Your task to perform on an android device: Go to Maps Image 0: 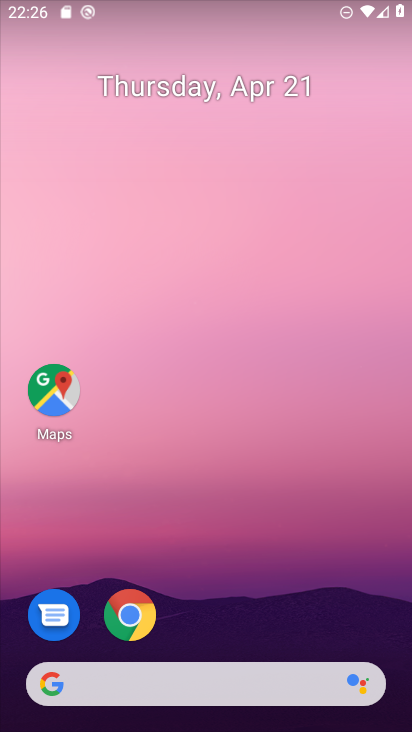
Step 0: click (242, 84)
Your task to perform on an android device: Go to Maps Image 1: 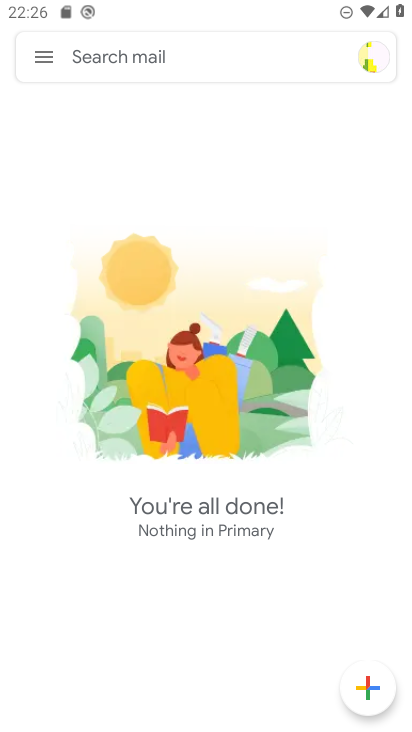
Step 1: drag from (166, 596) to (1, 90)
Your task to perform on an android device: Go to Maps Image 2: 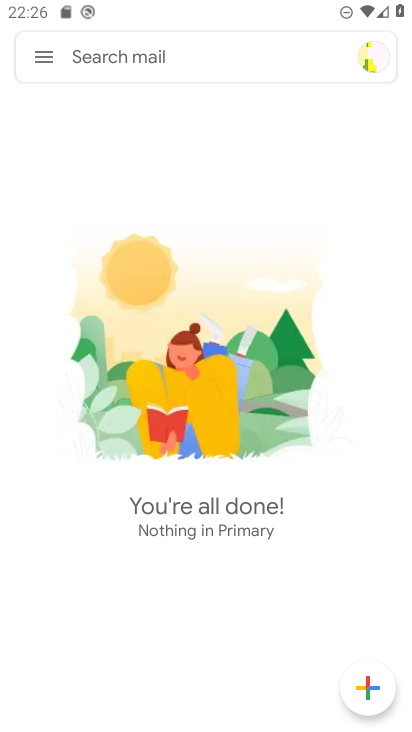
Step 2: click (46, 62)
Your task to perform on an android device: Go to Maps Image 3: 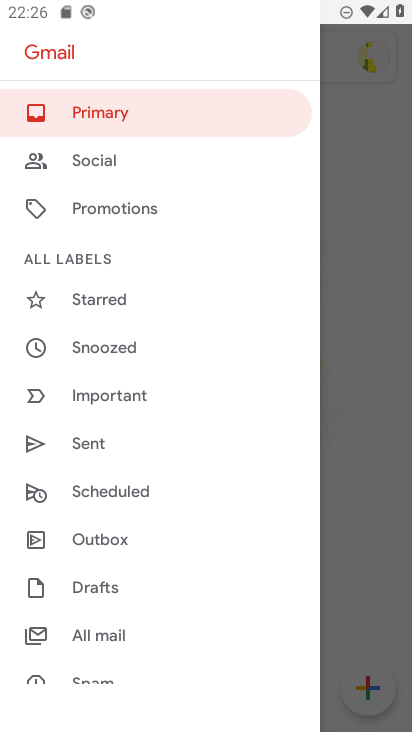
Step 3: drag from (126, 593) to (242, 118)
Your task to perform on an android device: Go to Maps Image 4: 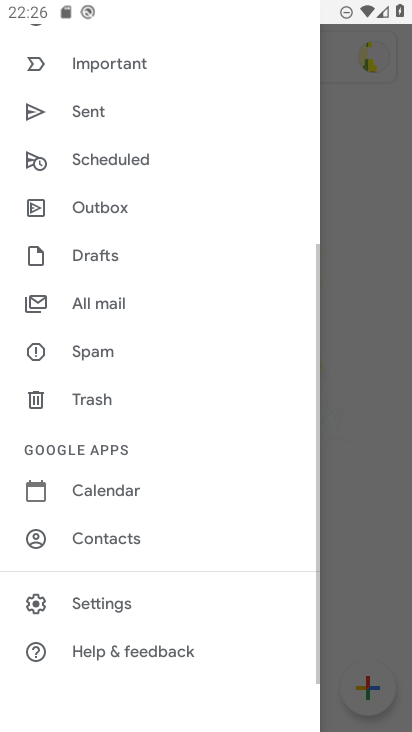
Step 4: drag from (157, 536) to (232, 117)
Your task to perform on an android device: Go to Maps Image 5: 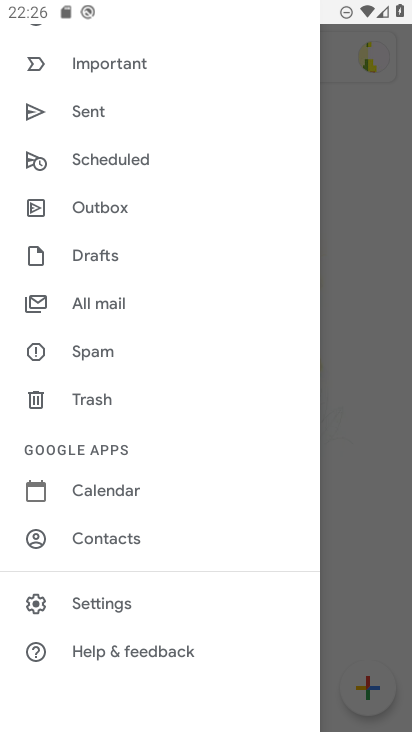
Step 5: drag from (162, 604) to (225, 269)
Your task to perform on an android device: Go to Maps Image 6: 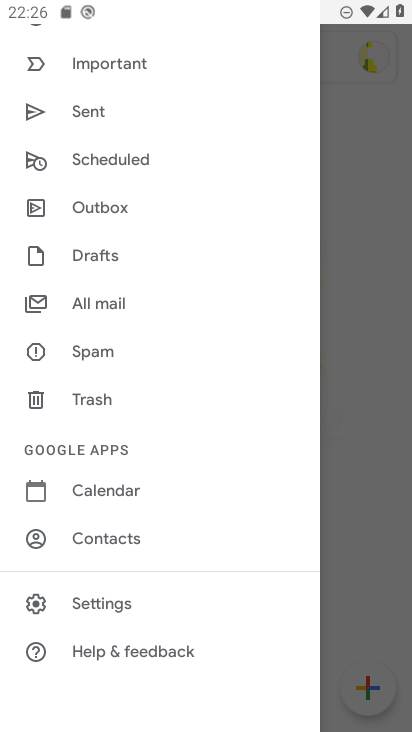
Step 6: press home button
Your task to perform on an android device: Go to Maps Image 7: 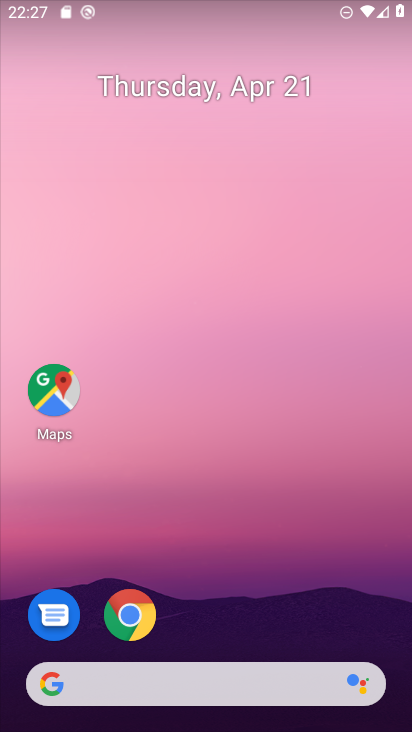
Step 7: drag from (200, 525) to (332, 40)
Your task to perform on an android device: Go to Maps Image 8: 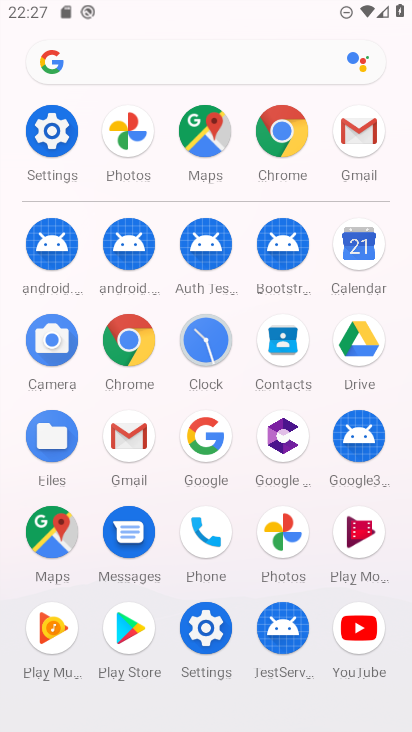
Step 8: click (38, 538)
Your task to perform on an android device: Go to Maps Image 9: 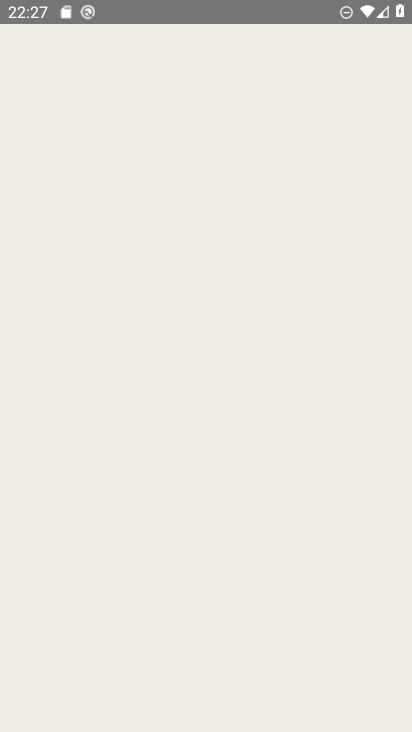
Step 9: task complete